Your task to perform on an android device: turn smart compose on in the gmail app Image 0: 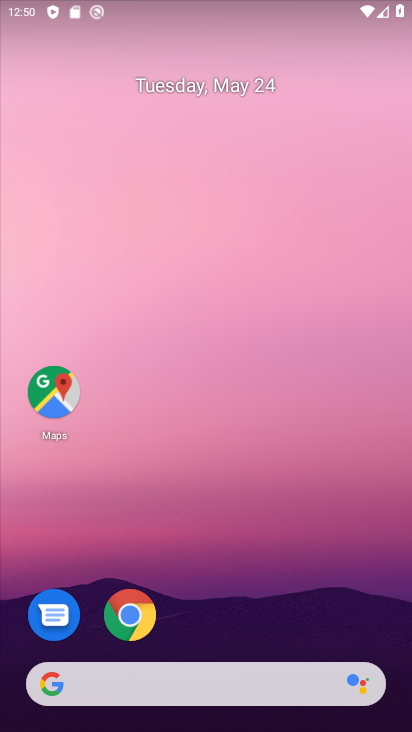
Step 0: press home button
Your task to perform on an android device: turn smart compose on in the gmail app Image 1: 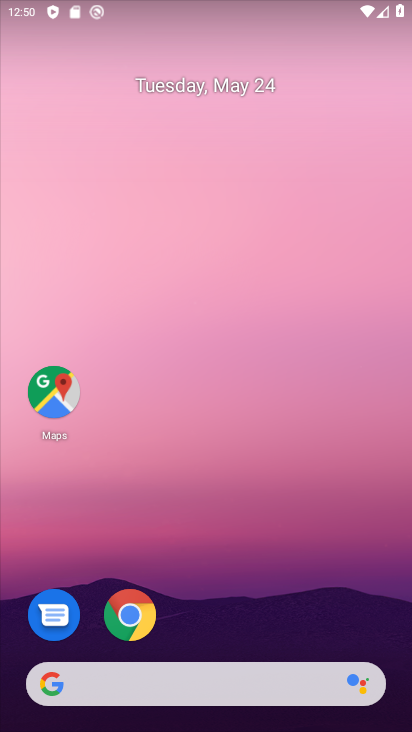
Step 1: press home button
Your task to perform on an android device: turn smart compose on in the gmail app Image 2: 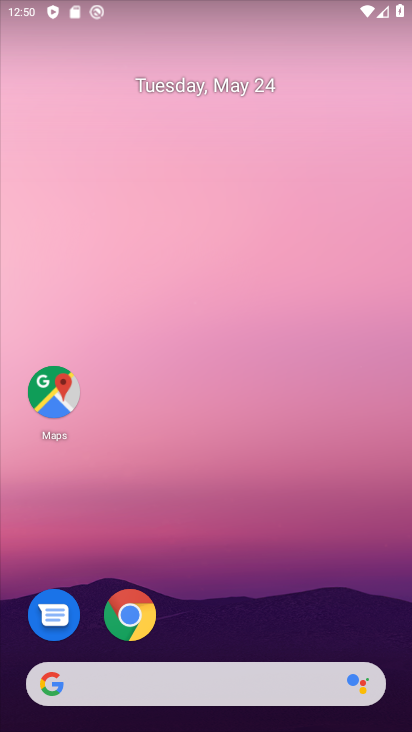
Step 2: drag from (209, 645) to (237, 90)
Your task to perform on an android device: turn smart compose on in the gmail app Image 3: 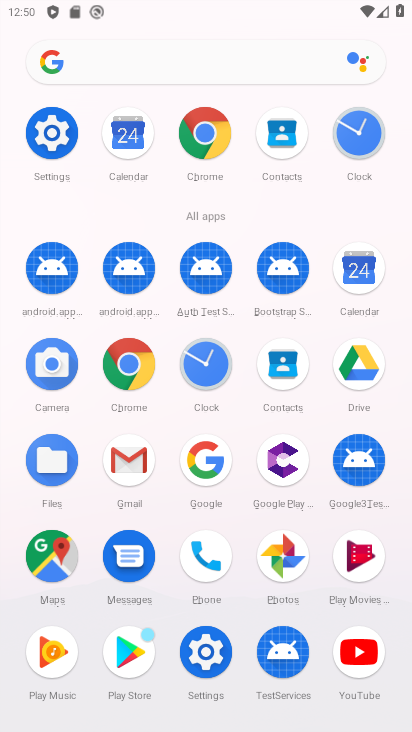
Step 3: click (129, 450)
Your task to perform on an android device: turn smart compose on in the gmail app Image 4: 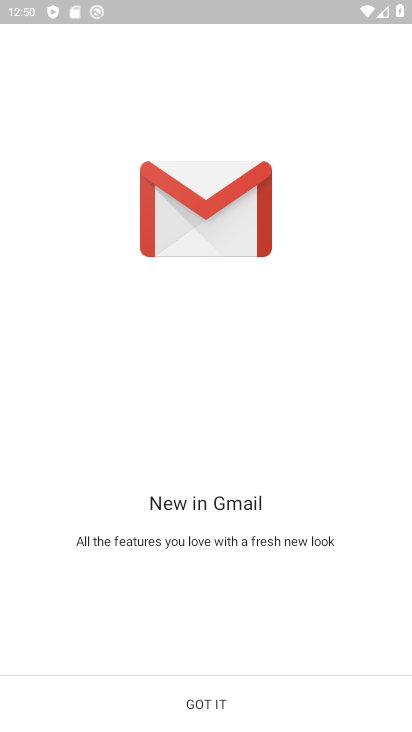
Step 4: click (199, 709)
Your task to perform on an android device: turn smart compose on in the gmail app Image 5: 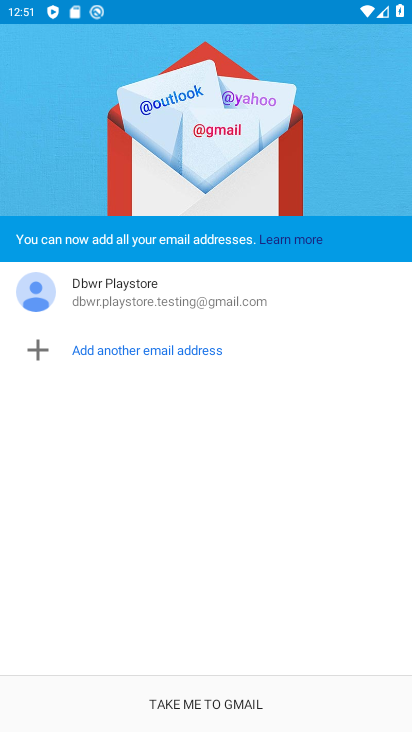
Step 5: click (197, 707)
Your task to perform on an android device: turn smart compose on in the gmail app Image 6: 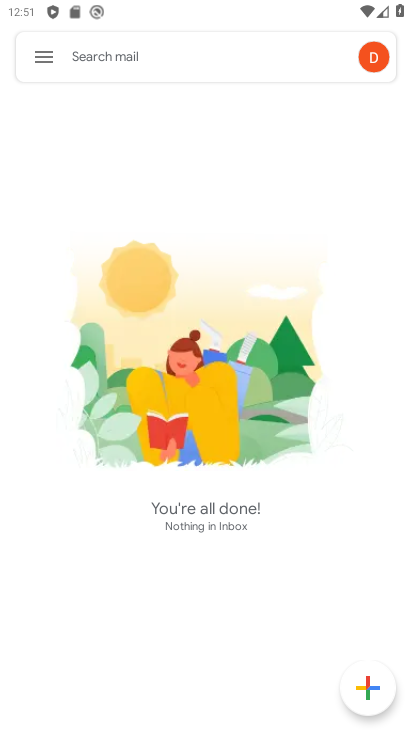
Step 6: click (41, 41)
Your task to perform on an android device: turn smart compose on in the gmail app Image 7: 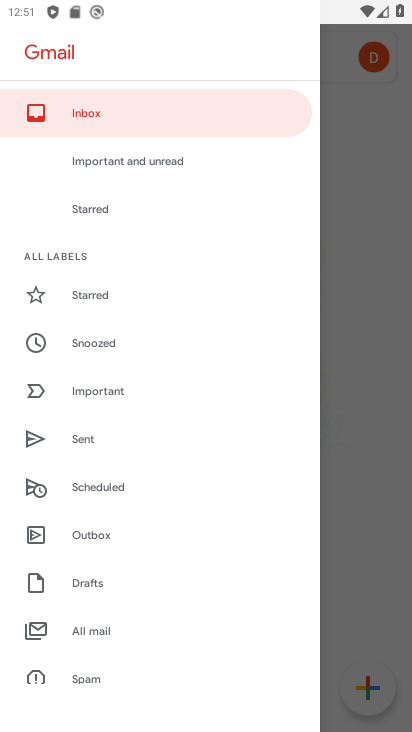
Step 7: drag from (138, 635) to (156, 246)
Your task to perform on an android device: turn smart compose on in the gmail app Image 8: 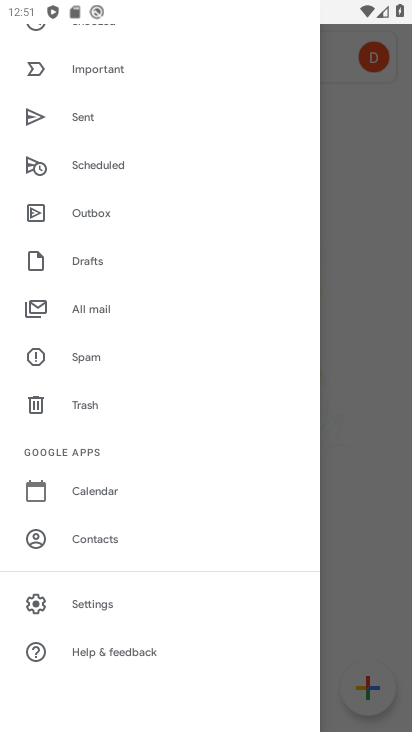
Step 8: click (131, 600)
Your task to perform on an android device: turn smart compose on in the gmail app Image 9: 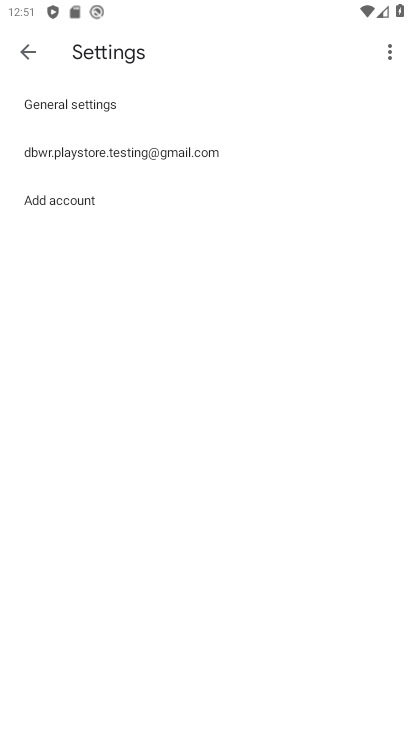
Step 9: click (109, 149)
Your task to perform on an android device: turn smart compose on in the gmail app Image 10: 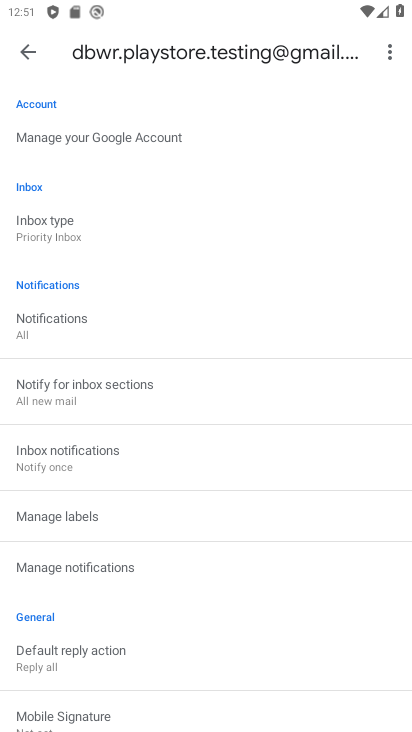
Step 10: task complete